Your task to perform on an android device: snooze an email in the gmail app Image 0: 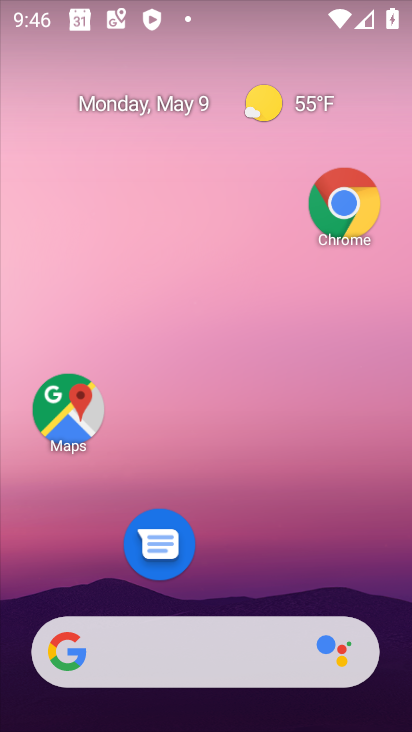
Step 0: drag from (246, 548) to (214, 86)
Your task to perform on an android device: snooze an email in the gmail app Image 1: 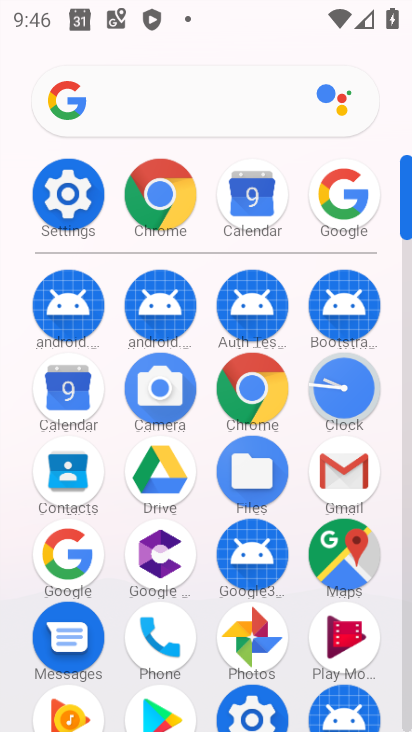
Step 1: click (324, 451)
Your task to perform on an android device: snooze an email in the gmail app Image 2: 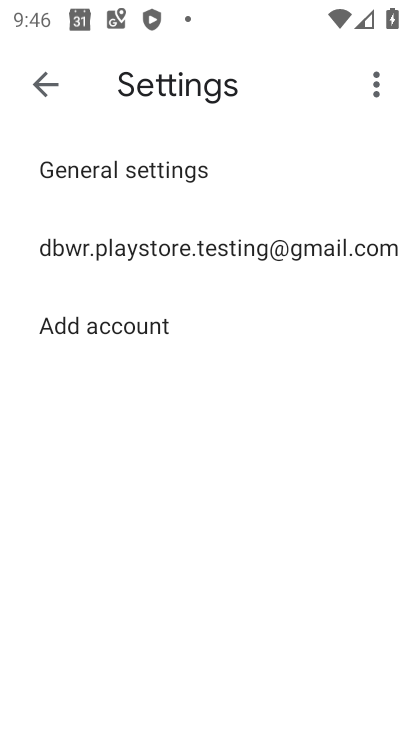
Step 2: click (40, 78)
Your task to perform on an android device: snooze an email in the gmail app Image 3: 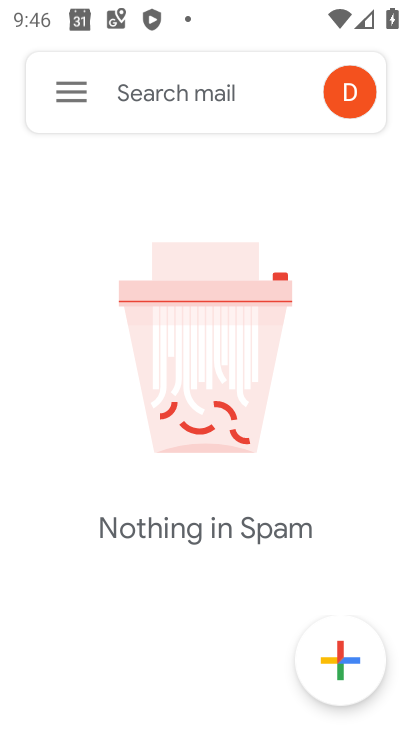
Step 3: click (56, 105)
Your task to perform on an android device: snooze an email in the gmail app Image 4: 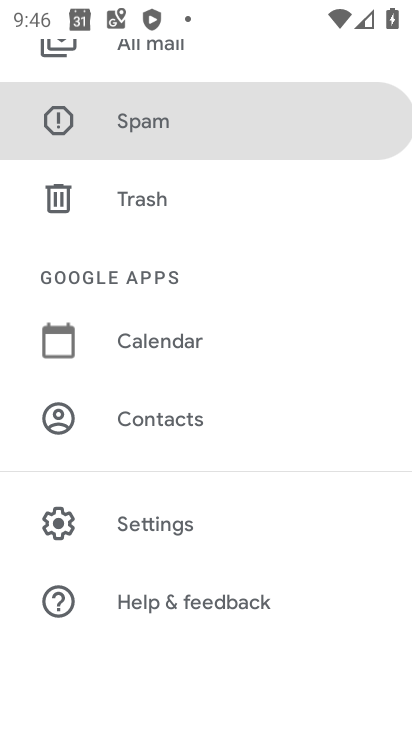
Step 4: drag from (129, 172) to (164, 548)
Your task to perform on an android device: snooze an email in the gmail app Image 5: 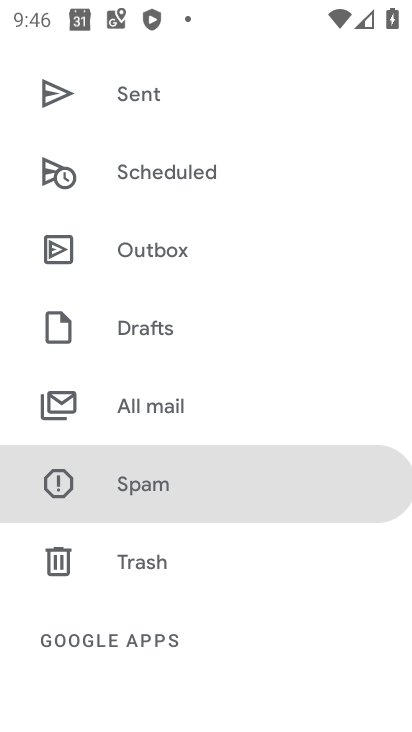
Step 5: click (163, 403)
Your task to perform on an android device: snooze an email in the gmail app Image 6: 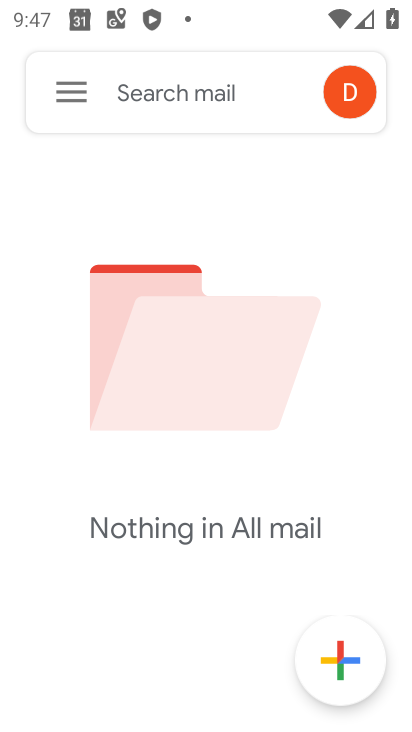
Step 6: click (72, 84)
Your task to perform on an android device: snooze an email in the gmail app Image 7: 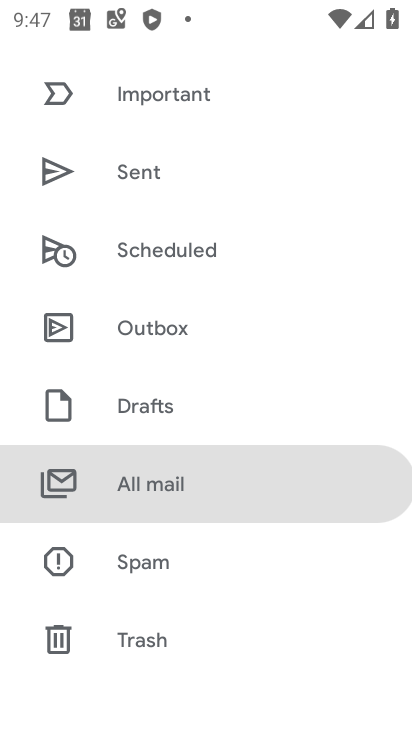
Step 7: click (232, 490)
Your task to perform on an android device: snooze an email in the gmail app Image 8: 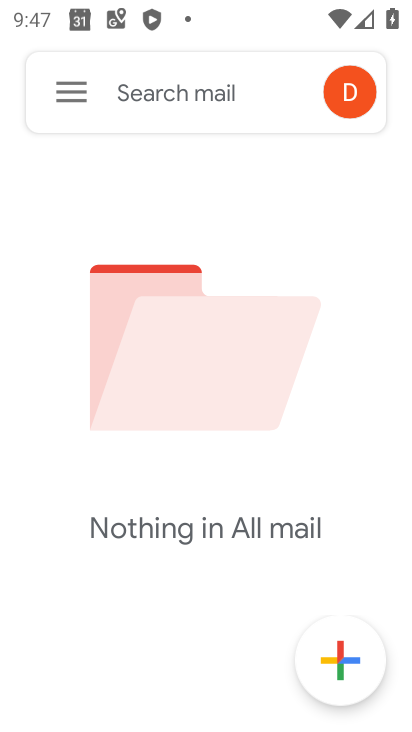
Step 8: click (70, 84)
Your task to perform on an android device: snooze an email in the gmail app Image 9: 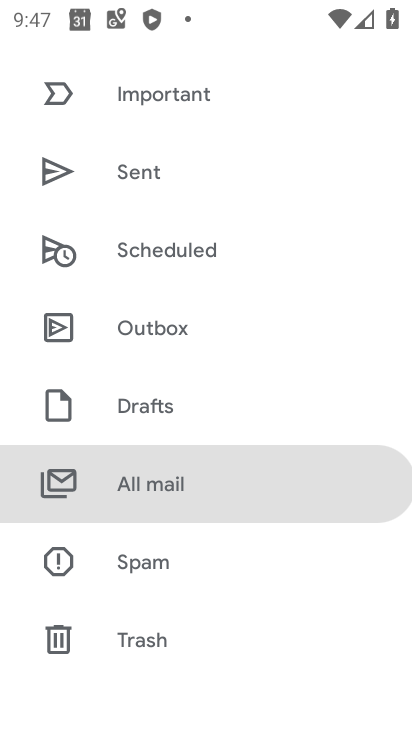
Step 9: task complete